Your task to perform on an android device: Open Google Chrome Image 0: 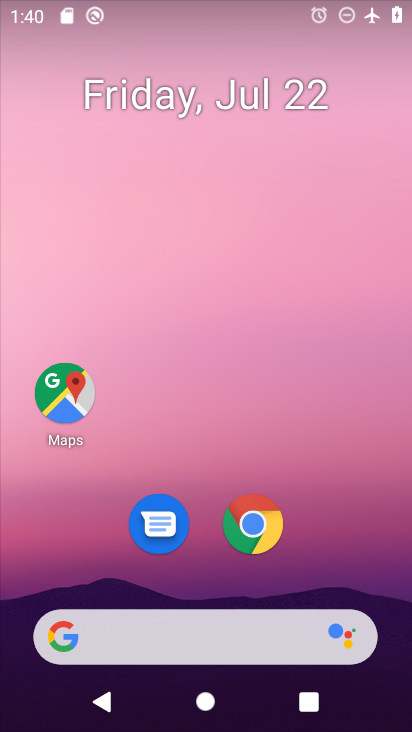
Step 0: click (263, 517)
Your task to perform on an android device: Open Google Chrome Image 1: 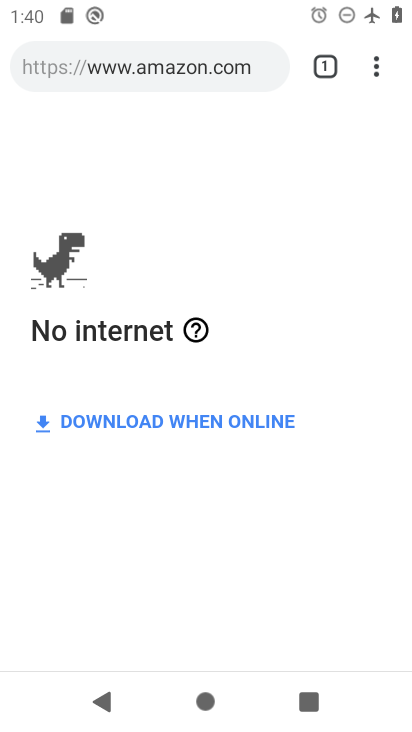
Step 1: task complete